Your task to perform on an android device: Go to Wikipedia Image 0: 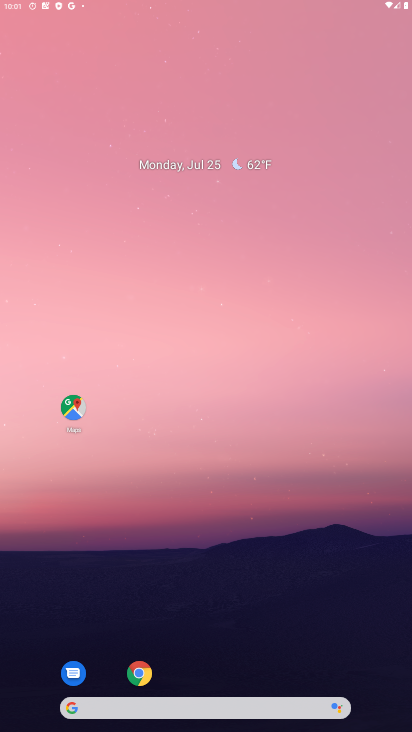
Step 0: drag from (169, 652) to (217, 54)
Your task to perform on an android device: Go to Wikipedia Image 1: 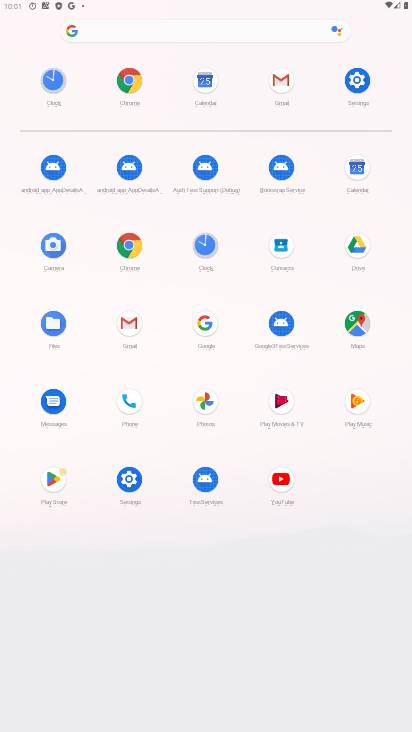
Step 1: drag from (174, 479) to (176, 351)
Your task to perform on an android device: Go to Wikipedia Image 2: 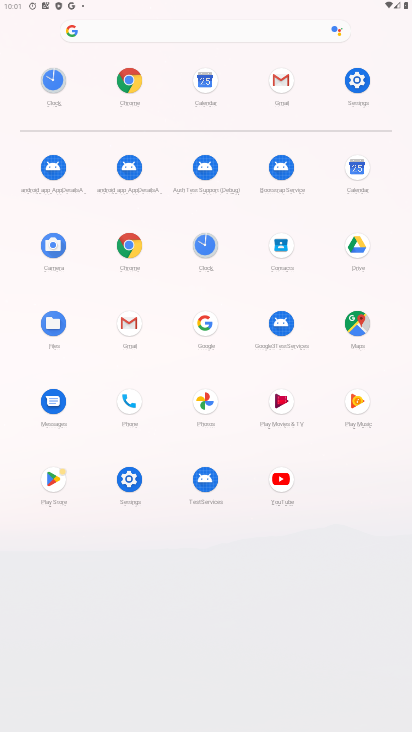
Step 2: click (194, 28)
Your task to perform on an android device: Go to Wikipedia Image 3: 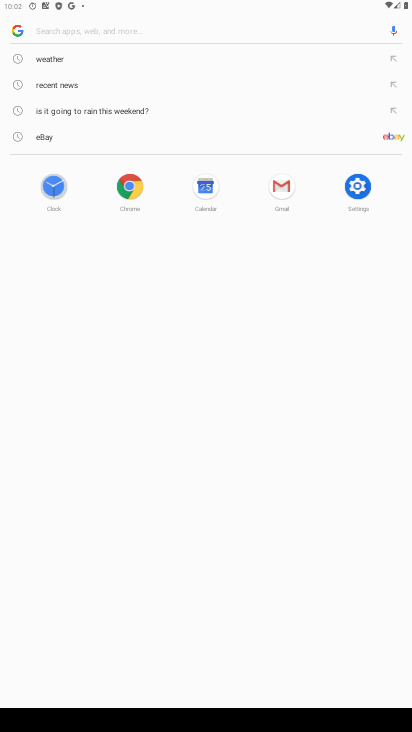
Step 3: type "Wikipedia"
Your task to perform on an android device: Go to Wikipedia Image 4: 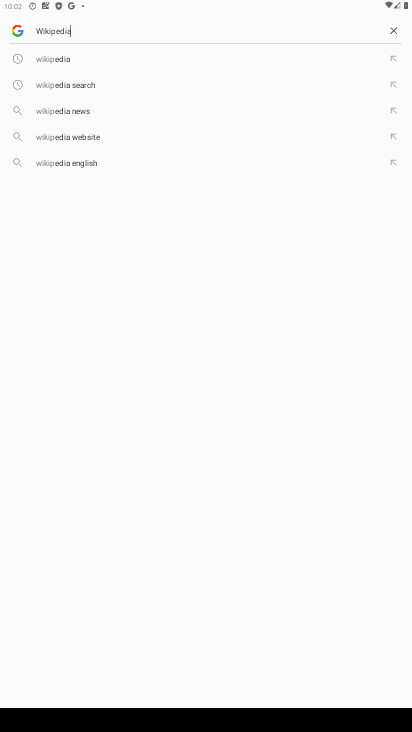
Step 4: type ""
Your task to perform on an android device: Go to Wikipedia Image 5: 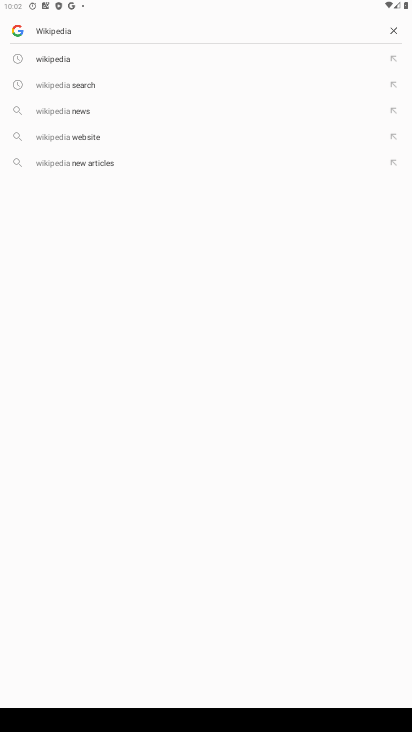
Step 5: click (56, 61)
Your task to perform on an android device: Go to Wikipedia Image 6: 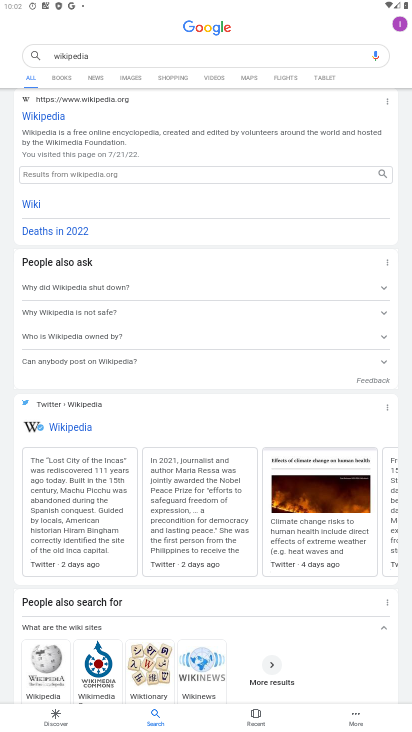
Step 6: drag from (224, 625) to (266, 190)
Your task to perform on an android device: Go to Wikipedia Image 7: 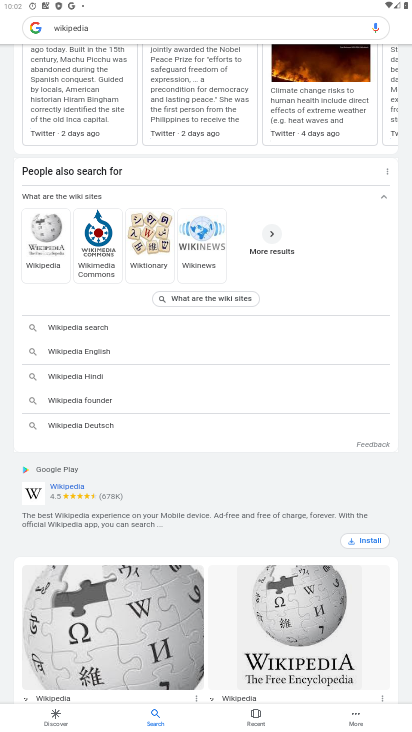
Step 7: drag from (191, 157) to (190, 730)
Your task to perform on an android device: Go to Wikipedia Image 8: 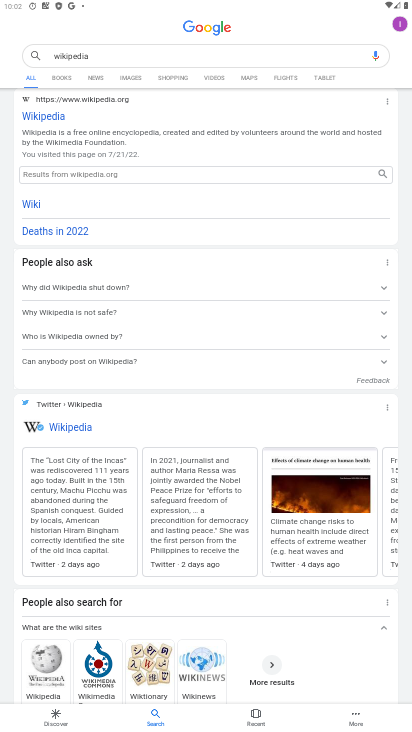
Step 8: drag from (101, 126) to (133, 507)
Your task to perform on an android device: Go to Wikipedia Image 9: 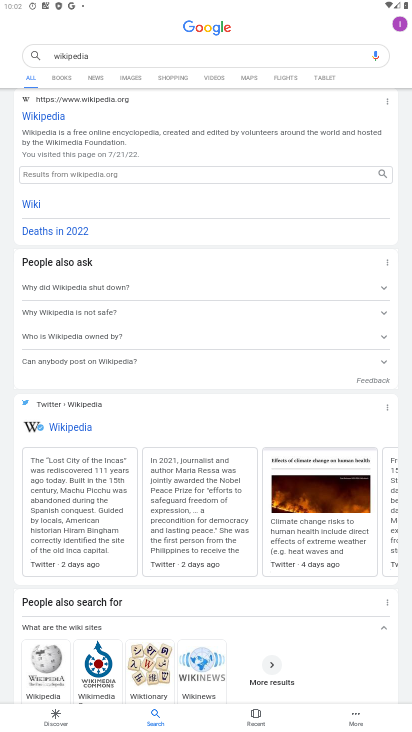
Step 9: click (35, 109)
Your task to perform on an android device: Go to Wikipedia Image 10: 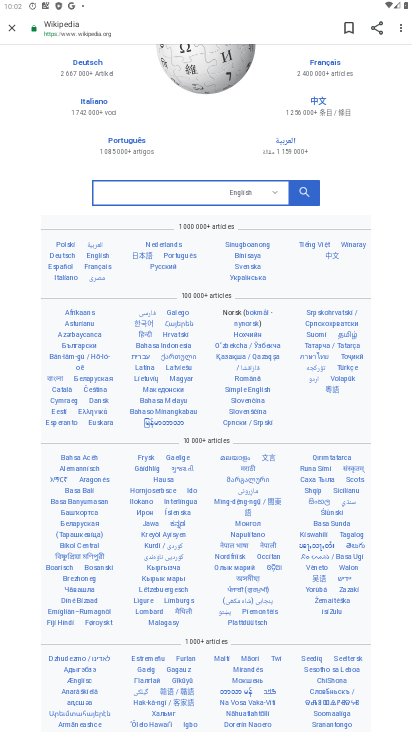
Step 10: task complete